Your task to perform on an android device: manage bookmarks in the chrome app Image 0: 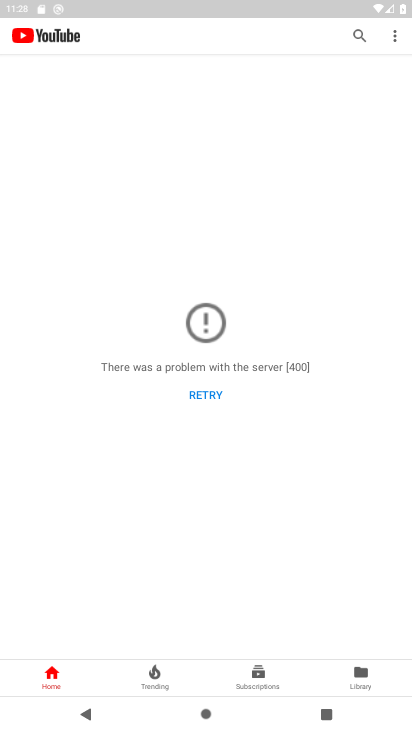
Step 0: drag from (254, 535) to (234, 377)
Your task to perform on an android device: manage bookmarks in the chrome app Image 1: 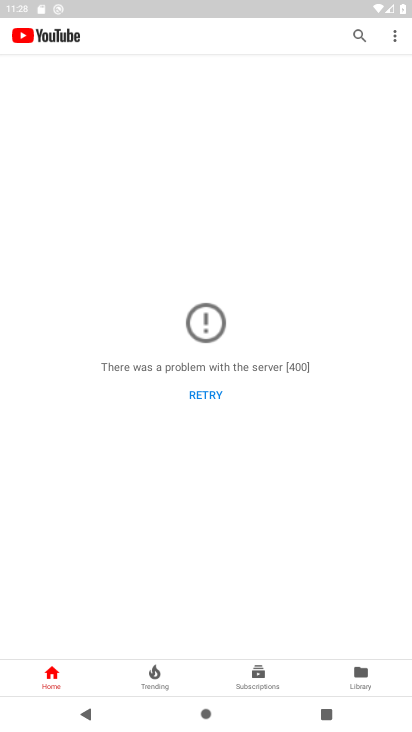
Step 1: press home button
Your task to perform on an android device: manage bookmarks in the chrome app Image 2: 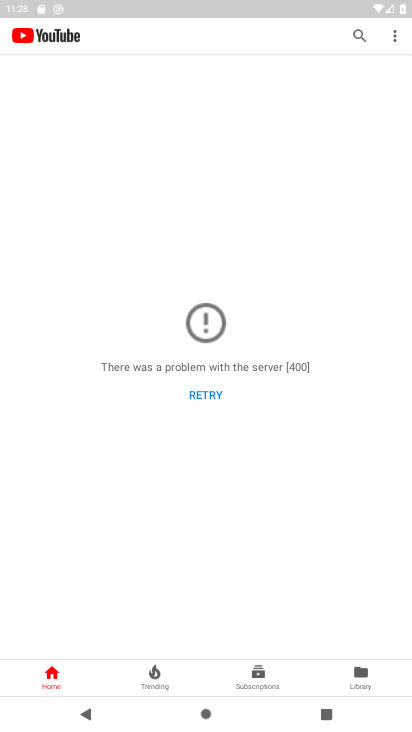
Step 2: drag from (230, 103) to (294, 25)
Your task to perform on an android device: manage bookmarks in the chrome app Image 3: 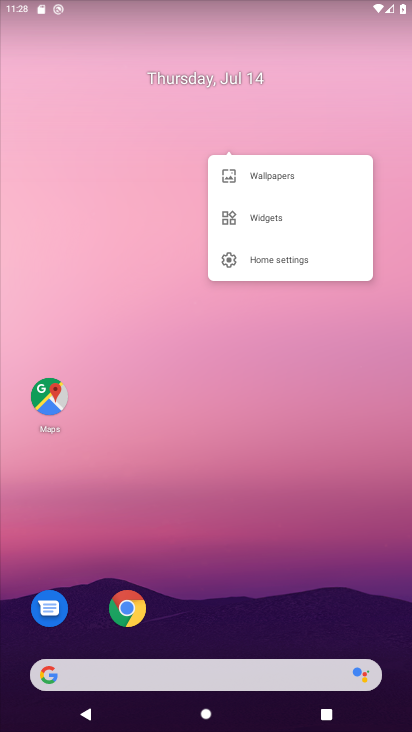
Step 3: drag from (227, 509) to (235, 263)
Your task to perform on an android device: manage bookmarks in the chrome app Image 4: 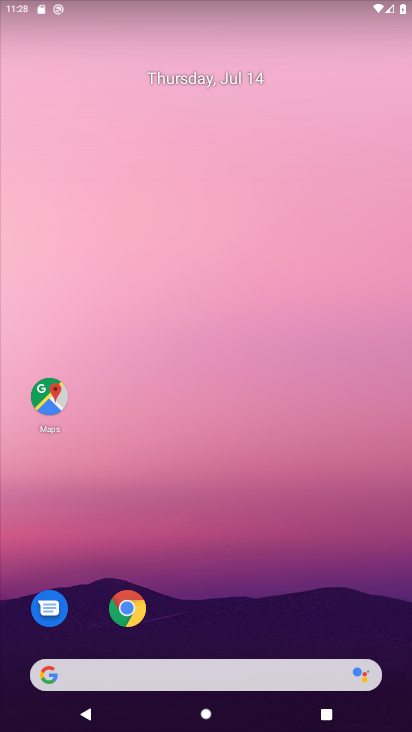
Step 4: drag from (202, 600) to (215, 201)
Your task to perform on an android device: manage bookmarks in the chrome app Image 5: 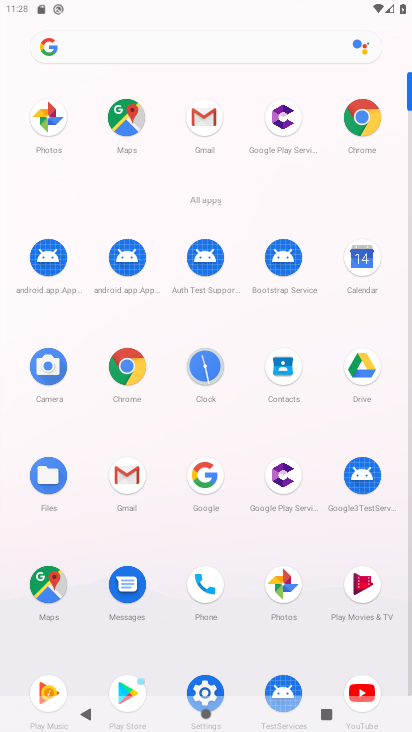
Step 5: click (128, 367)
Your task to perform on an android device: manage bookmarks in the chrome app Image 6: 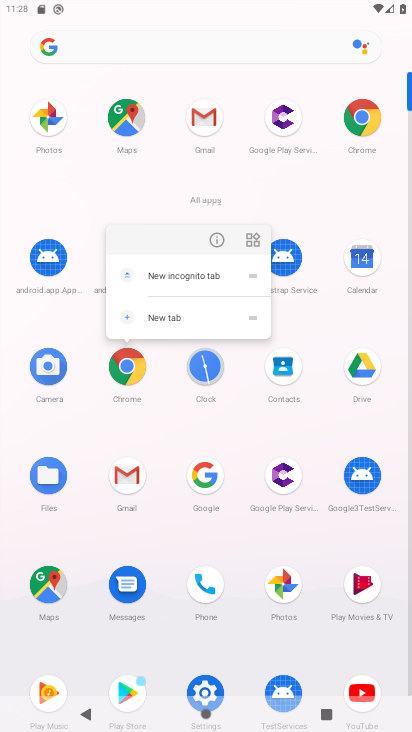
Step 6: click (218, 239)
Your task to perform on an android device: manage bookmarks in the chrome app Image 7: 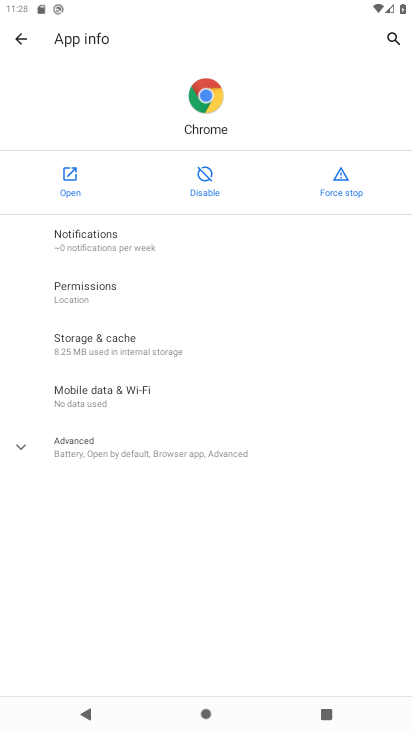
Step 7: click (65, 188)
Your task to perform on an android device: manage bookmarks in the chrome app Image 8: 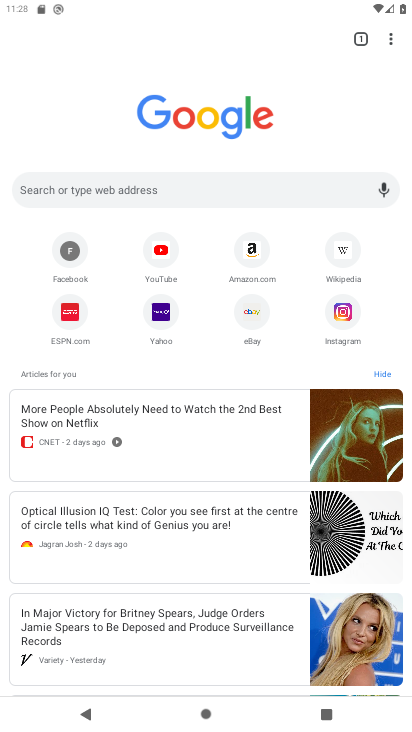
Step 8: drag from (222, 567) to (202, 248)
Your task to perform on an android device: manage bookmarks in the chrome app Image 9: 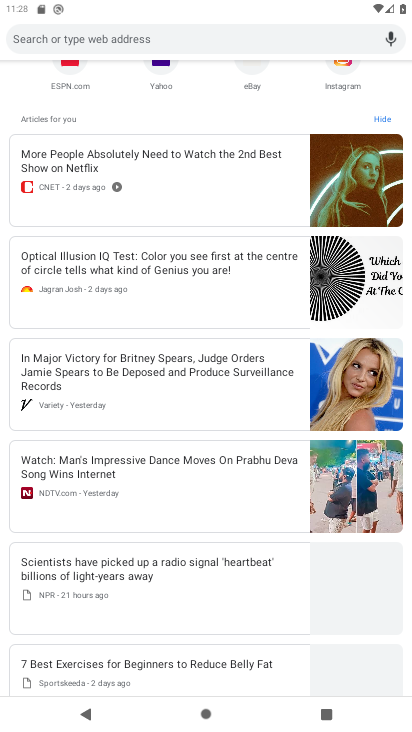
Step 9: drag from (201, 237) to (238, 615)
Your task to perform on an android device: manage bookmarks in the chrome app Image 10: 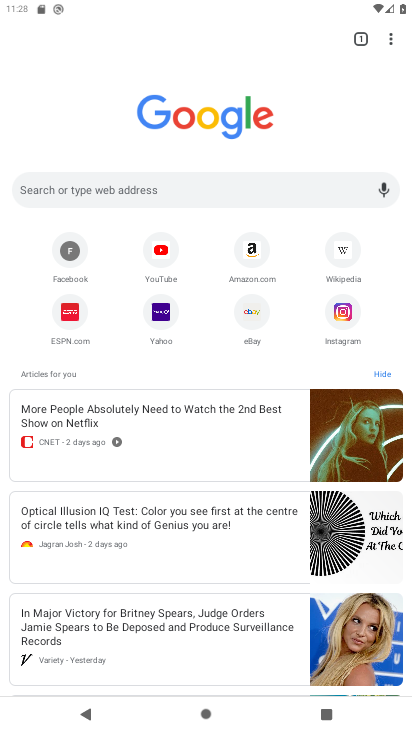
Step 10: click (391, 42)
Your task to perform on an android device: manage bookmarks in the chrome app Image 11: 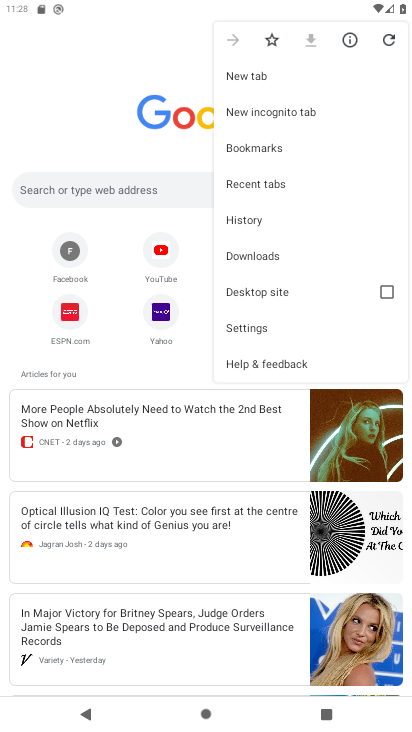
Step 11: click (280, 139)
Your task to perform on an android device: manage bookmarks in the chrome app Image 12: 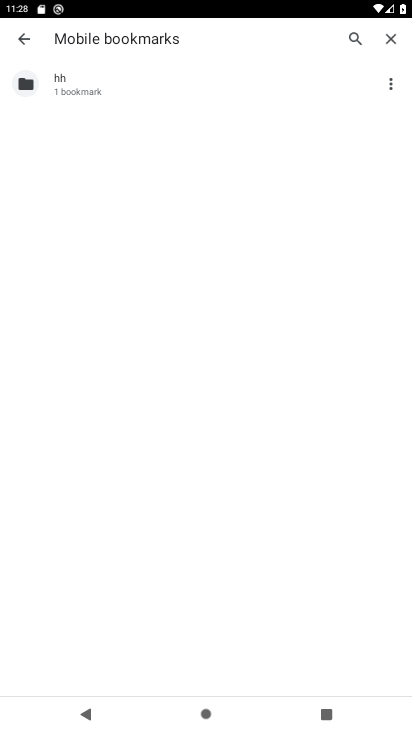
Step 12: drag from (175, 582) to (180, 284)
Your task to perform on an android device: manage bookmarks in the chrome app Image 13: 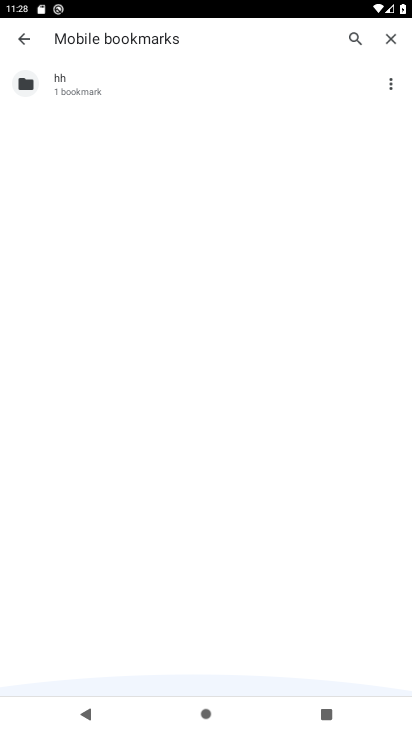
Step 13: drag from (170, 176) to (205, 494)
Your task to perform on an android device: manage bookmarks in the chrome app Image 14: 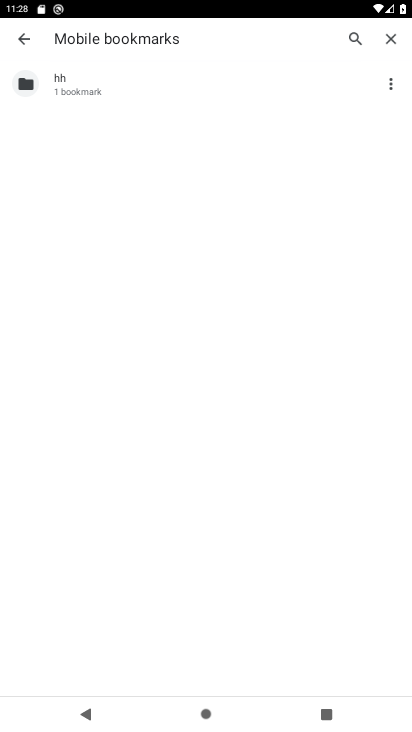
Step 14: drag from (273, 459) to (282, 231)
Your task to perform on an android device: manage bookmarks in the chrome app Image 15: 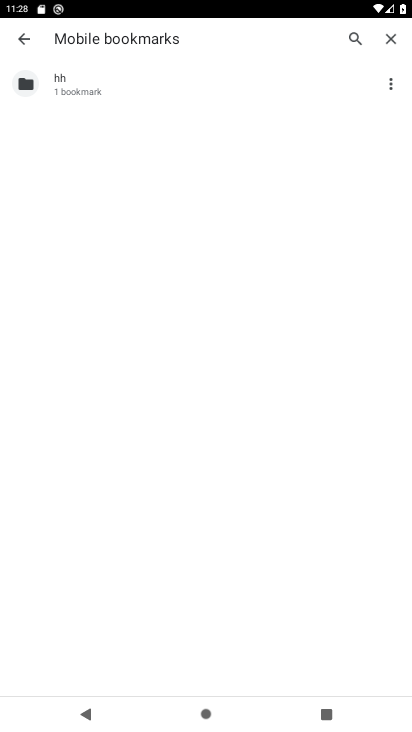
Step 15: click (197, 385)
Your task to perform on an android device: manage bookmarks in the chrome app Image 16: 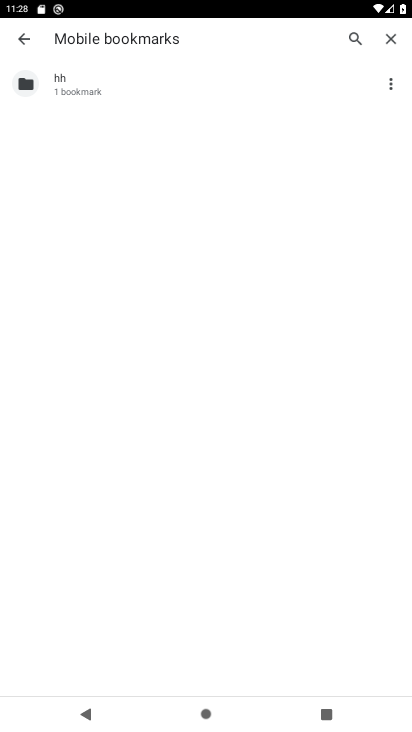
Step 16: task complete